Your task to perform on an android device: turn on wifi Image 0: 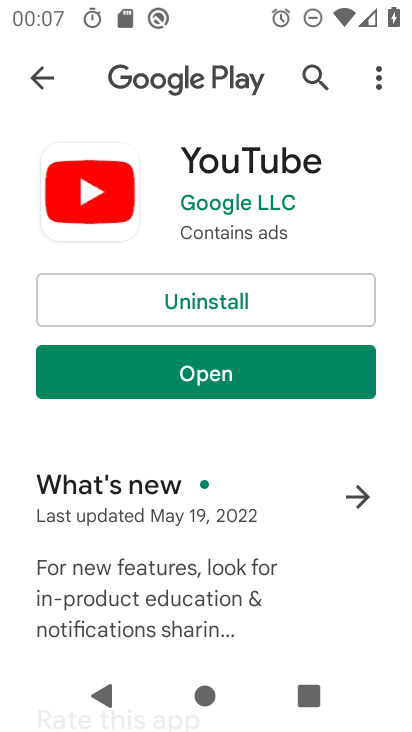
Step 0: press home button
Your task to perform on an android device: turn on wifi Image 1: 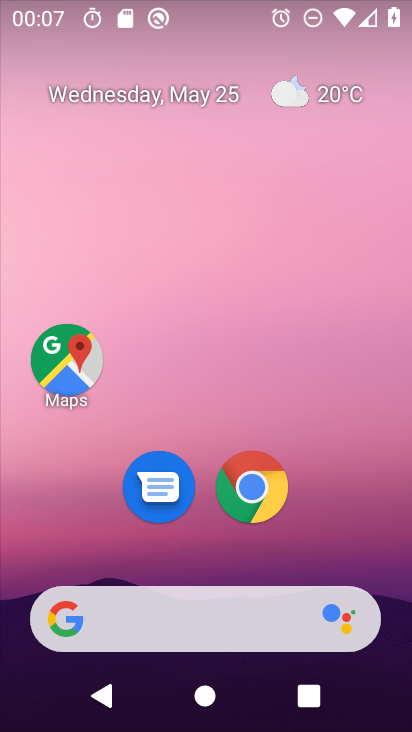
Step 1: drag from (358, 576) to (257, 63)
Your task to perform on an android device: turn on wifi Image 2: 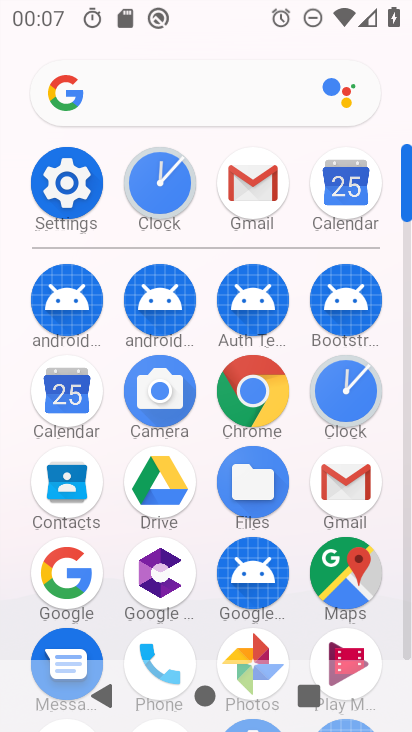
Step 2: click (64, 187)
Your task to perform on an android device: turn on wifi Image 3: 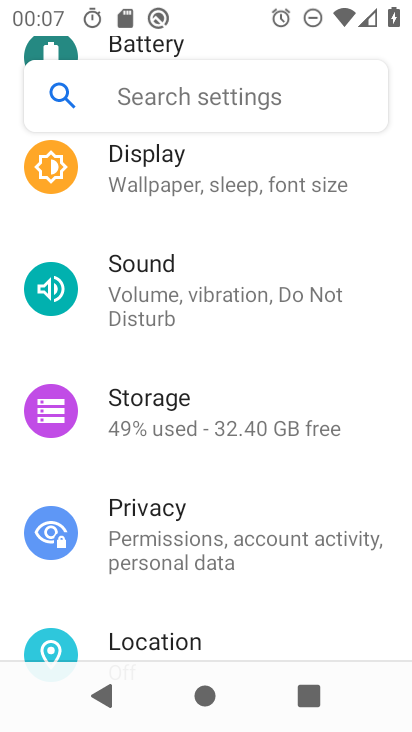
Step 3: drag from (227, 209) to (239, 702)
Your task to perform on an android device: turn on wifi Image 4: 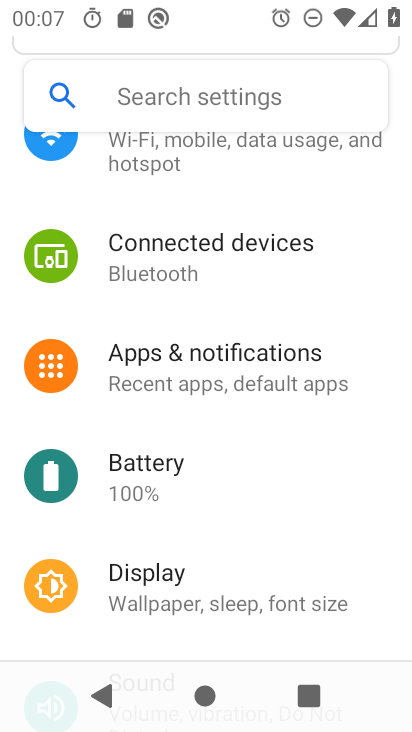
Step 4: drag from (179, 209) to (188, 502)
Your task to perform on an android device: turn on wifi Image 5: 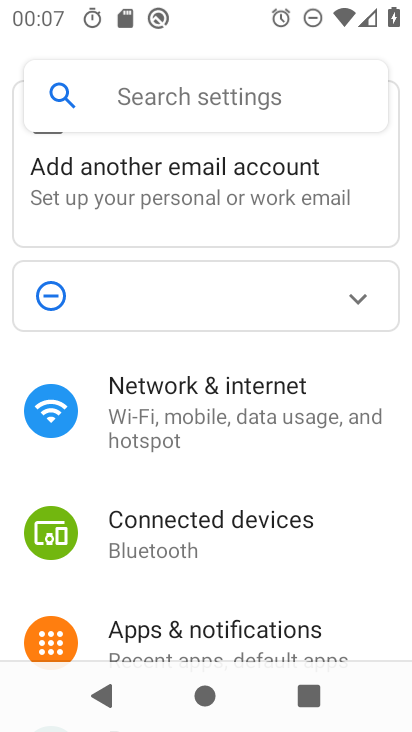
Step 5: click (185, 430)
Your task to perform on an android device: turn on wifi Image 6: 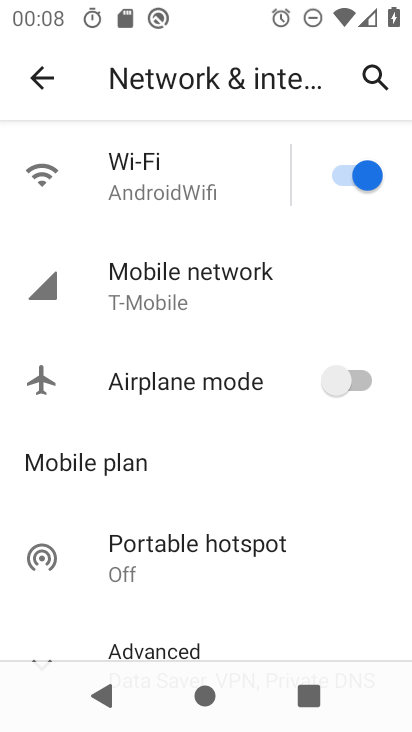
Step 6: task complete